Your task to perform on an android device: change the clock display to analog Image 0: 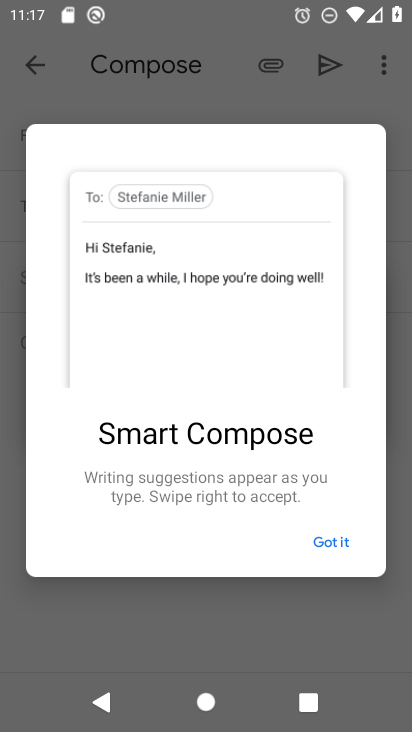
Step 0: press home button
Your task to perform on an android device: change the clock display to analog Image 1: 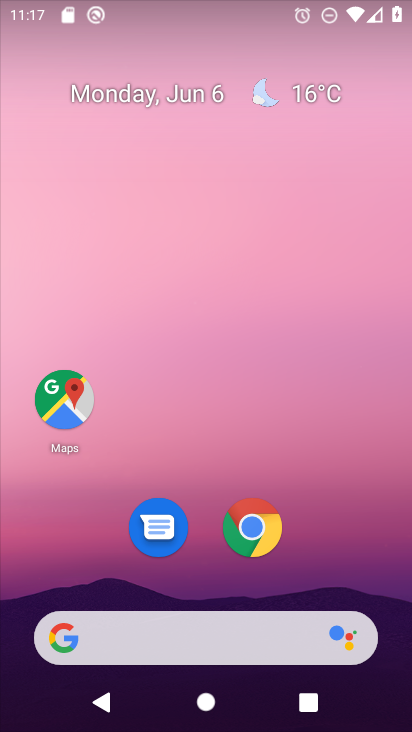
Step 1: drag from (332, 573) to (411, 278)
Your task to perform on an android device: change the clock display to analog Image 2: 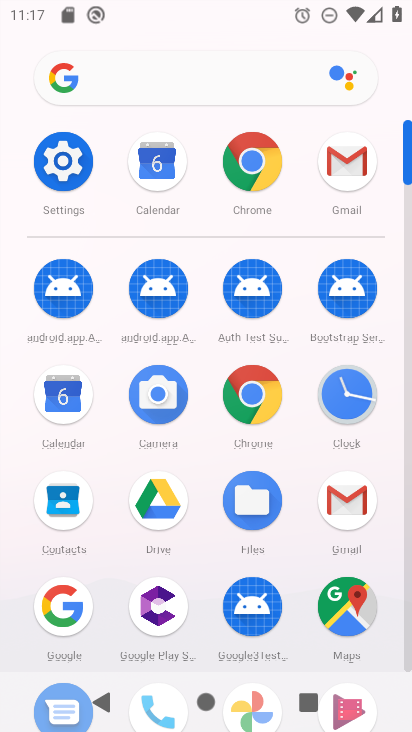
Step 2: click (353, 400)
Your task to perform on an android device: change the clock display to analog Image 3: 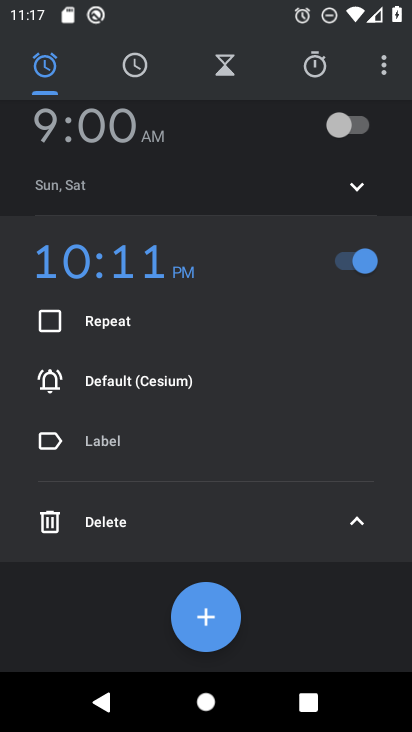
Step 3: drag from (288, 199) to (321, 344)
Your task to perform on an android device: change the clock display to analog Image 4: 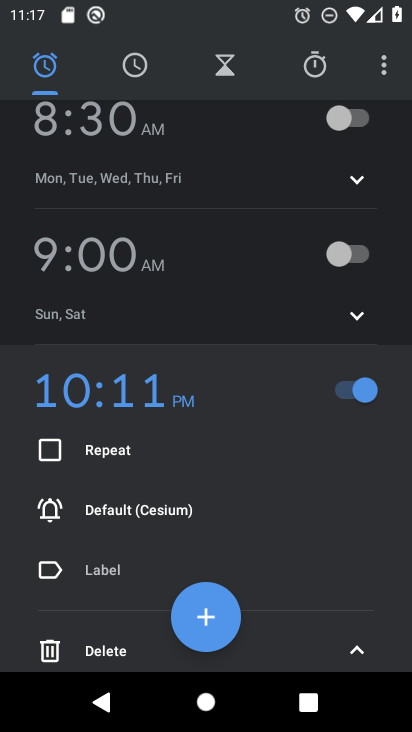
Step 4: click (387, 63)
Your task to perform on an android device: change the clock display to analog Image 5: 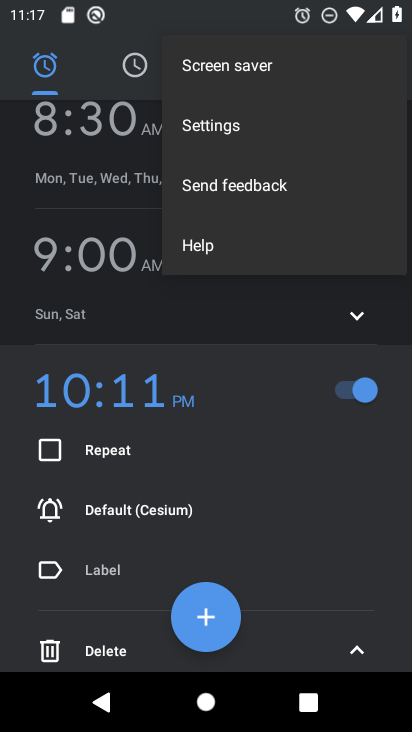
Step 5: click (235, 128)
Your task to perform on an android device: change the clock display to analog Image 6: 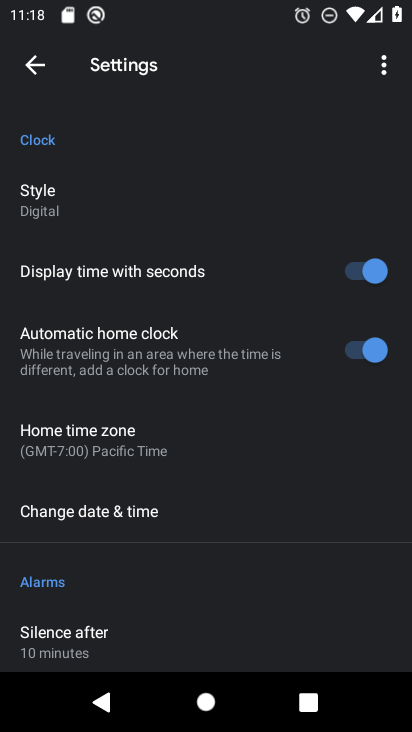
Step 6: drag from (266, 414) to (271, 267)
Your task to perform on an android device: change the clock display to analog Image 7: 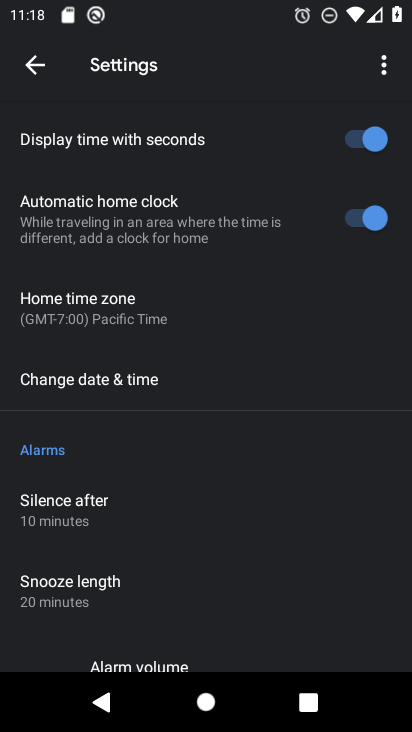
Step 7: drag from (297, 431) to (262, 240)
Your task to perform on an android device: change the clock display to analog Image 8: 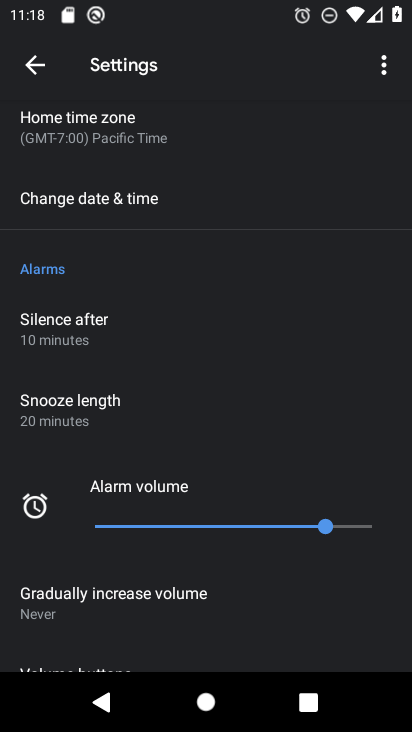
Step 8: drag from (253, 208) to (272, 349)
Your task to perform on an android device: change the clock display to analog Image 9: 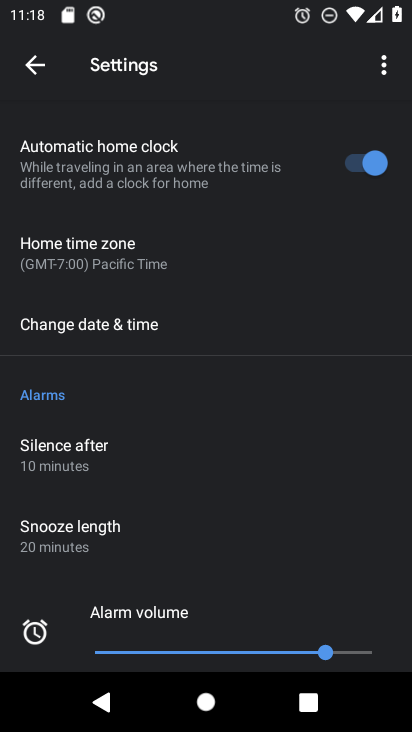
Step 9: drag from (249, 140) to (307, 350)
Your task to perform on an android device: change the clock display to analog Image 10: 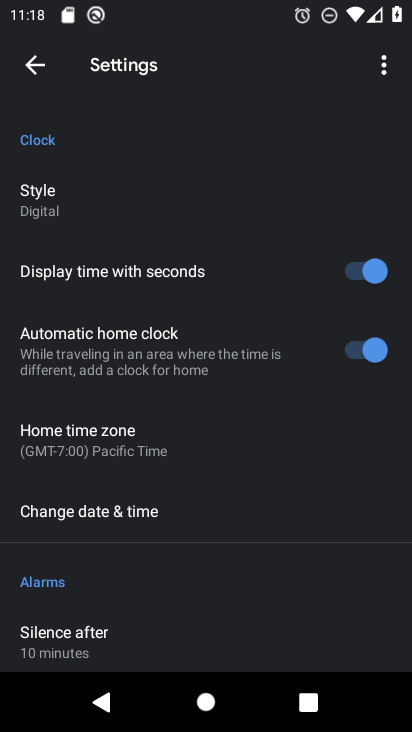
Step 10: click (37, 216)
Your task to perform on an android device: change the clock display to analog Image 11: 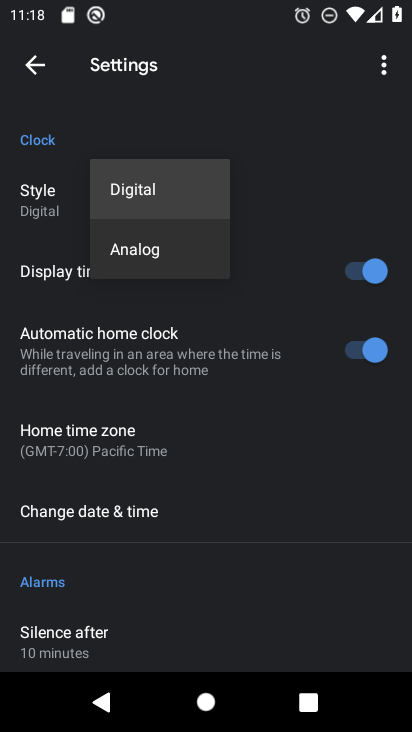
Step 11: click (146, 265)
Your task to perform on an android device: change the clock display to analog Image 12: 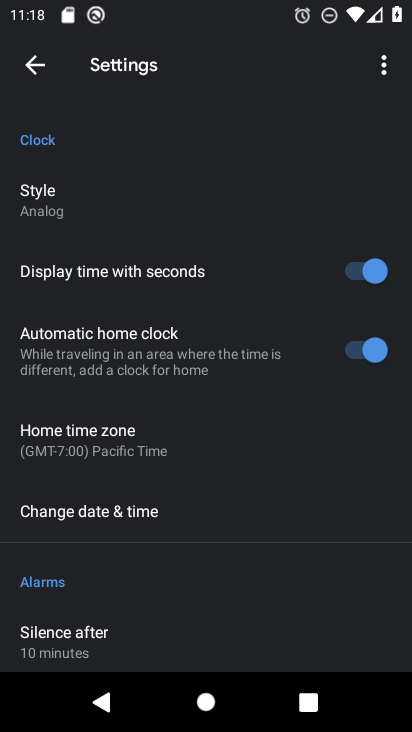
Step 12: task complete